Your task to perform on an android device: find snoozed emails in the gmail app Image 0: 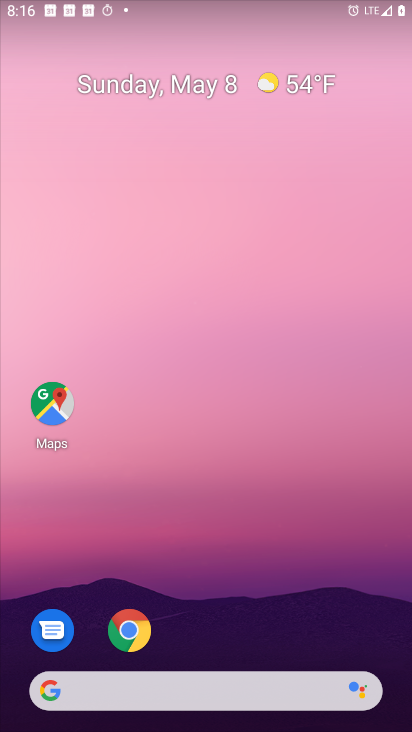
Step 0: drag from (208, 675) to (146, 4)
Your task to perform on an android device: find snoozed emails in the gmail app Image 1: 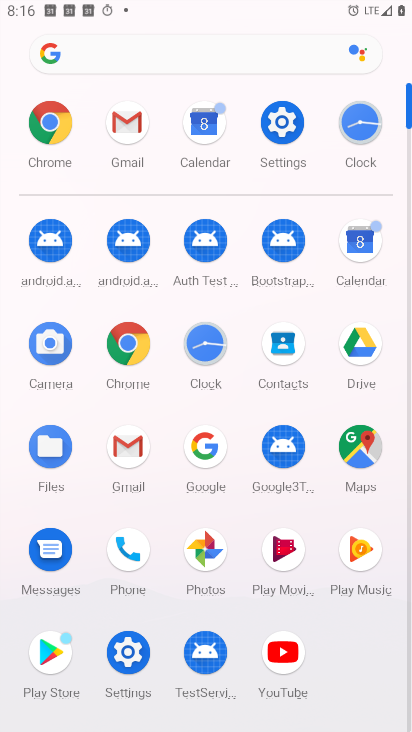
Step 1: click (128, 461)
Your task to perform on an android device: find snoozed emails in the gmail app Image 2: 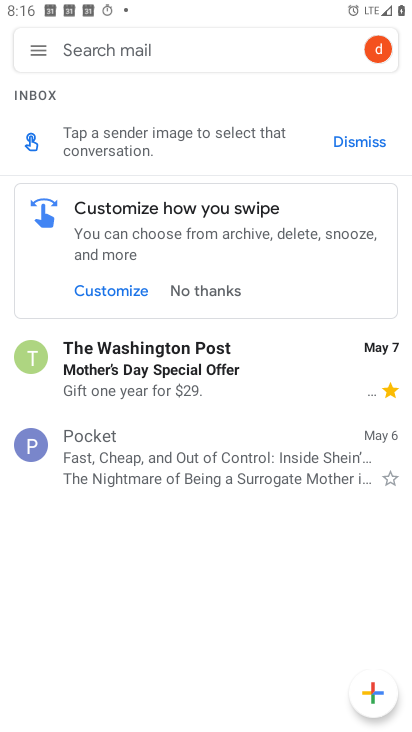
Step 2: click (37, 50)
Your task to perform on an android device: find snoozed emails in the gmail app Image 3: 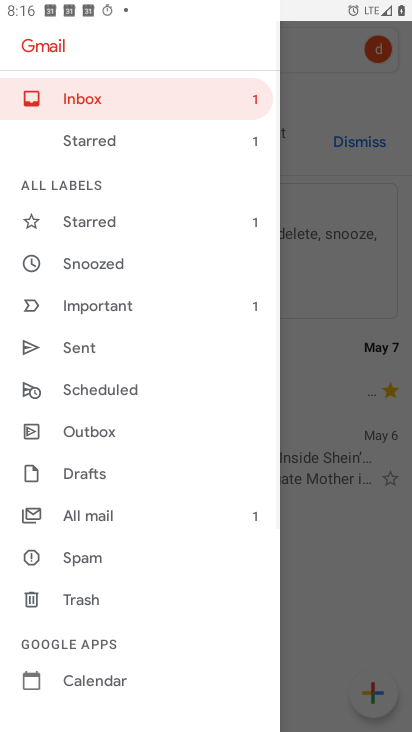
Step 3: click (98, 260)
Your task to perform on an android device: find snoozed emails in the gmail app Image 4: 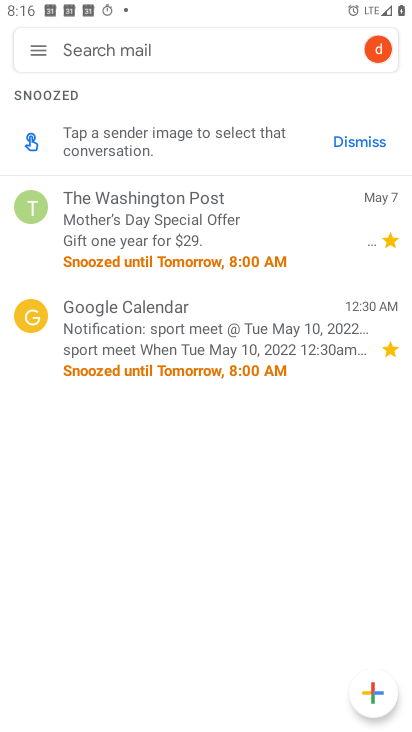
Step 4: task complete